Your task to perform on an android device: Open sound settings Image 0: 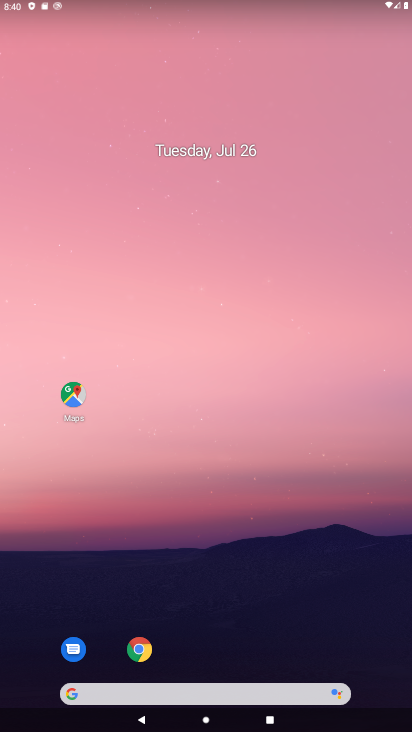
Step 0: drag from (188, 641) to (156, 148)
Your task to perform on an android device: Open sound settings Image 1: 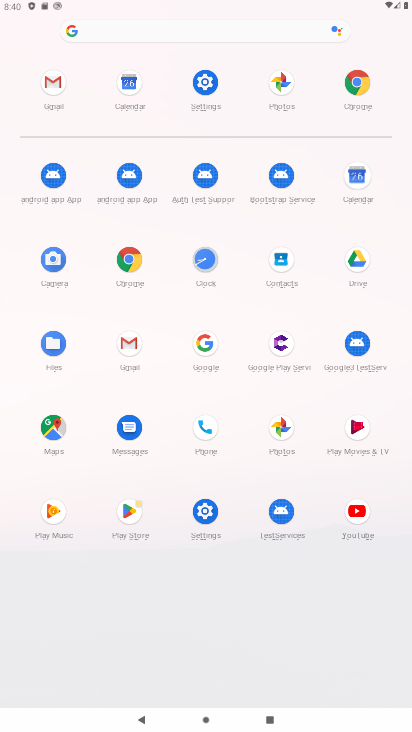
Step 1: click (199, 514)
Your task to perform on an android device: Open sound settings Image 2: 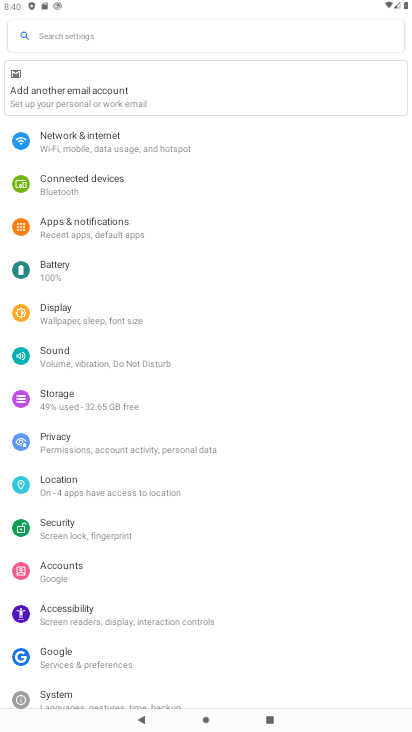
Step 2: click (97, 353)
Your task to perform on an android device: Open sound settings Image 3: 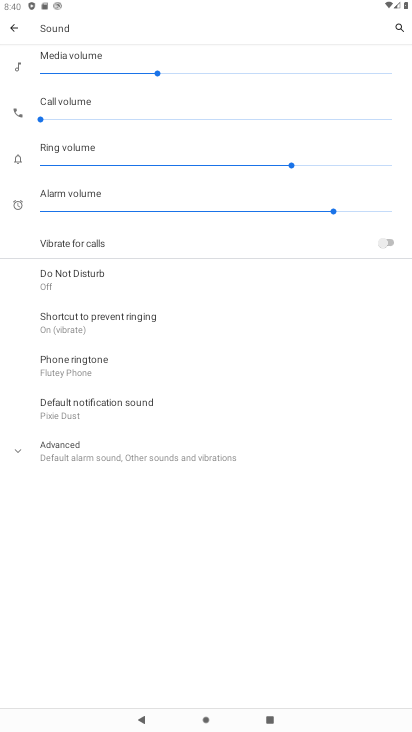
Step 3: task complete